Your task to perform on an android device: show emergency info Image 0: 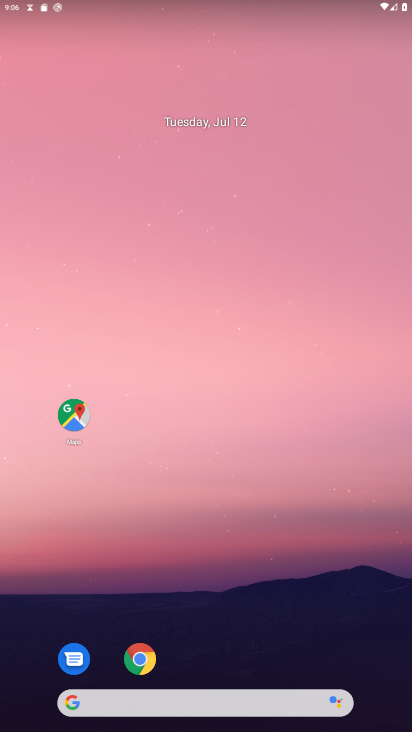
Step 0: drag from (200, 653) to (207, 132)
Your task to perform on an android device: show emergency info Image 1: 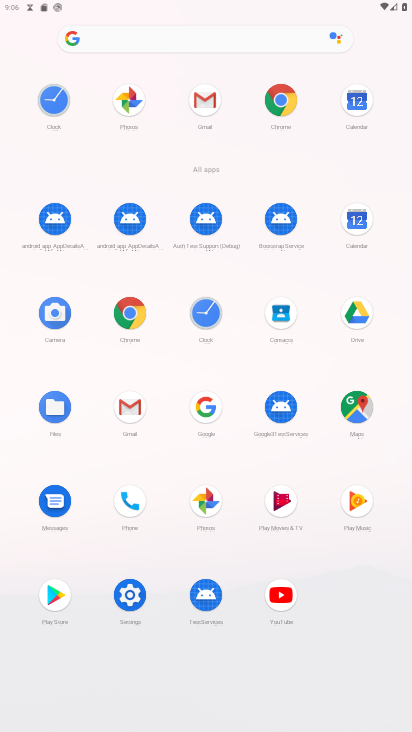
Step 1: click (133, 593)
Your task to perform on an android device: show emergency info Image 2: 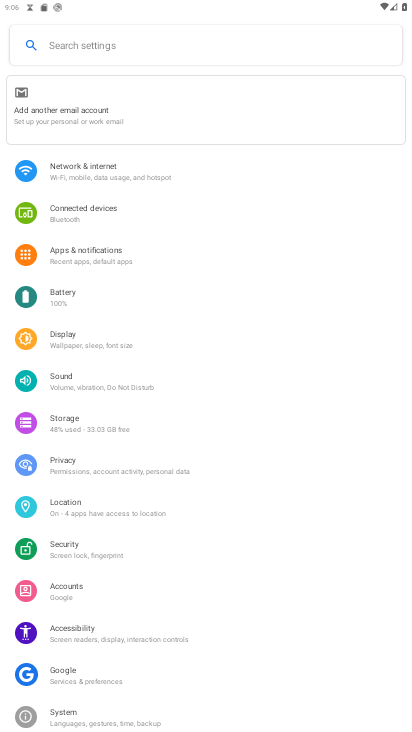
Step 2: drag from (58, 676) to (92, 290)
Your task to perform on an android device: show emergency info Image 3: 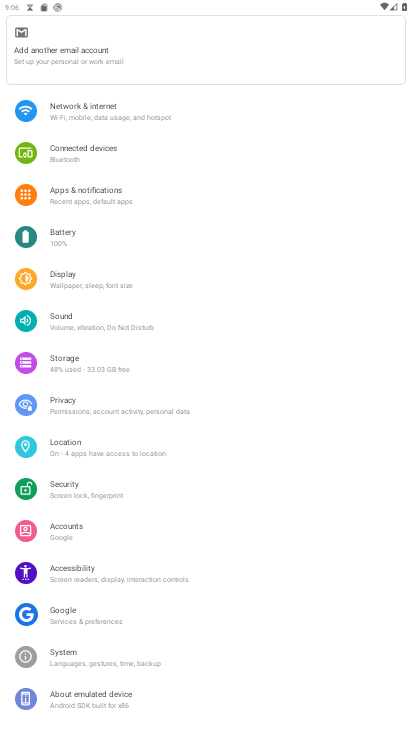
Step 3: click (69, 705)
Your task to perform on an android device: show emergency info Image 4: 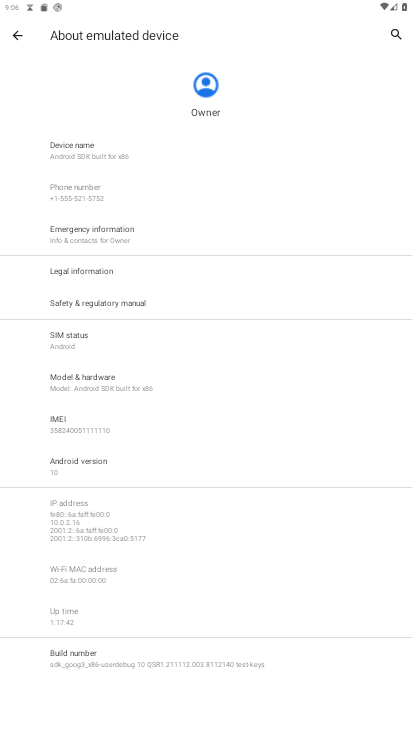
Step 4: click (92, 230)
Your task to perform on an android device: show emergency info Image 5: 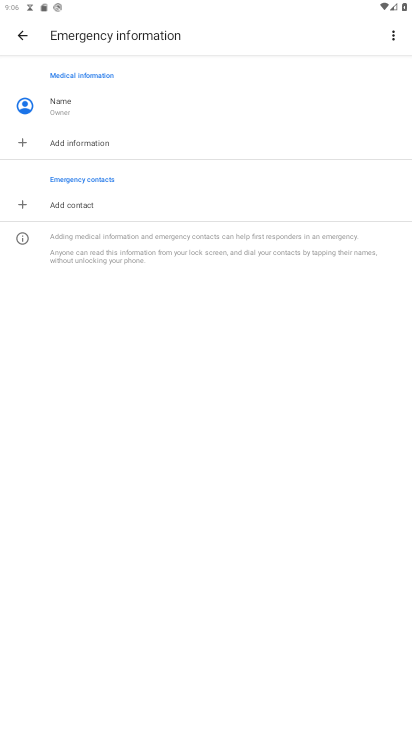
Step 5: task complete